Your task to perform on an android device: turn notification dots off Image 0: 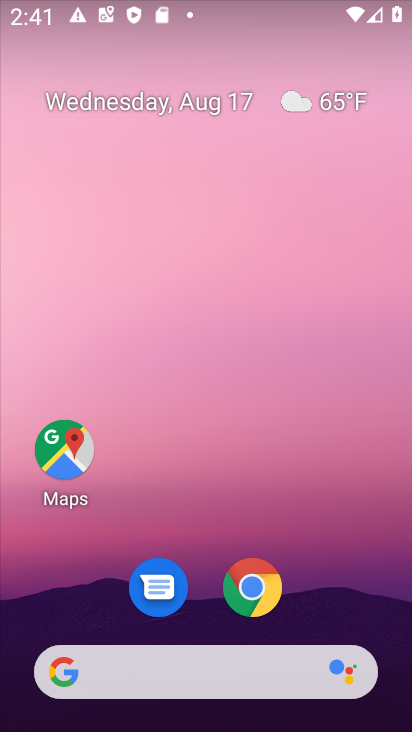
Step 0: drag from (94, 460) to (254, 88)
Your task to perform on an android device: turn notification dots off Image 1: 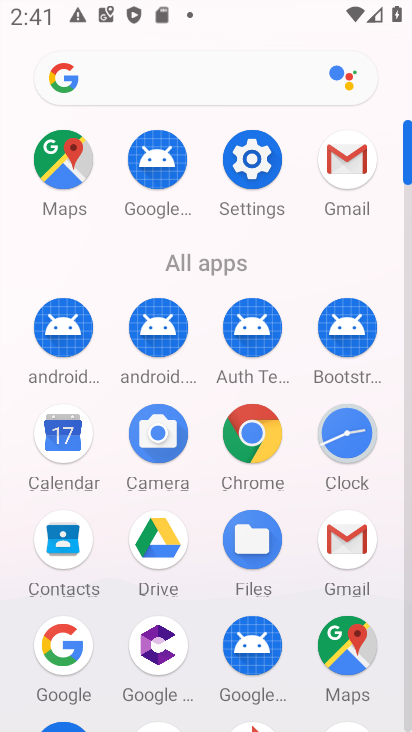
Step 1: click (255, 160)
Your task to perform on an android device: turn notification dots off Image 2: 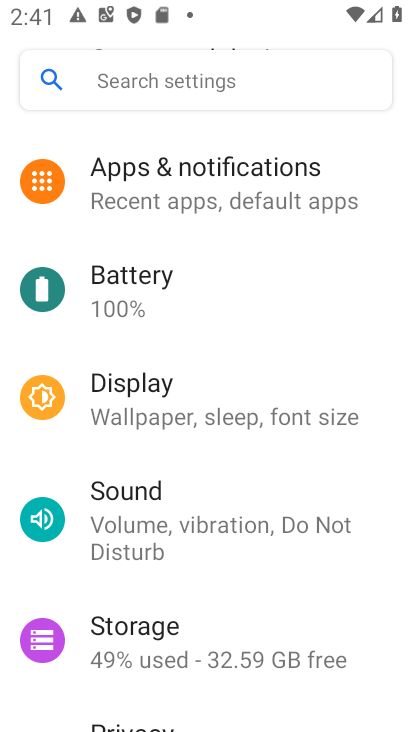
Step 2: click (165, 186)
Your task to perform on an android device: turn notification dots off Image 3: 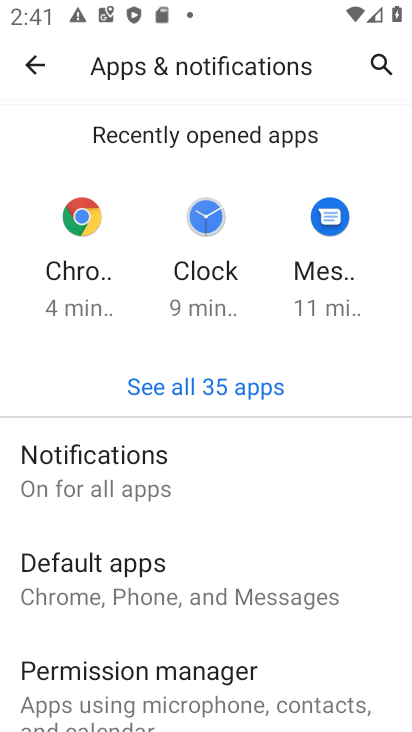
Step 3: click (87, 469)
Your task to perform on an android device: turn notification dots off Image 4: 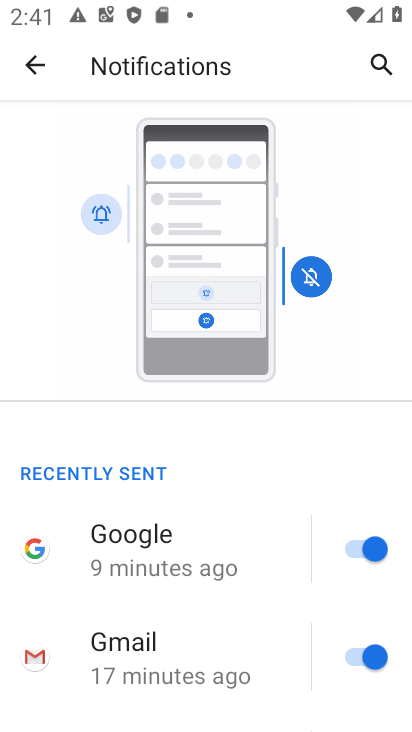
Step 4: drag from (8, 479) to (100, 68)
Your task to perform on an android device: turn notification dots off Image 5: 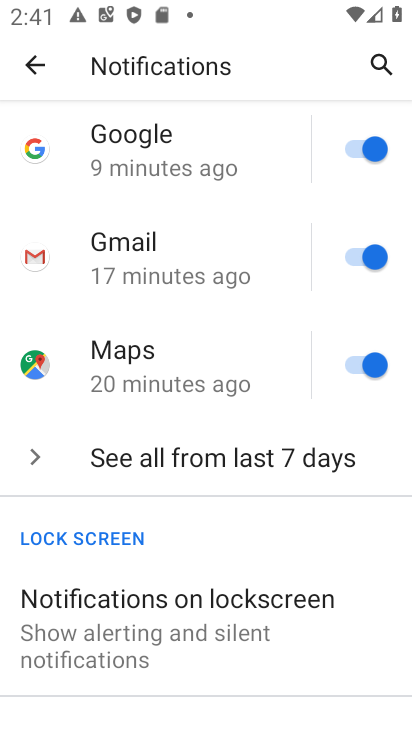
Step 5: drag from (8, 443) to (47, 58)
Your task to perform on an android device: turn notification dots off Image 6: 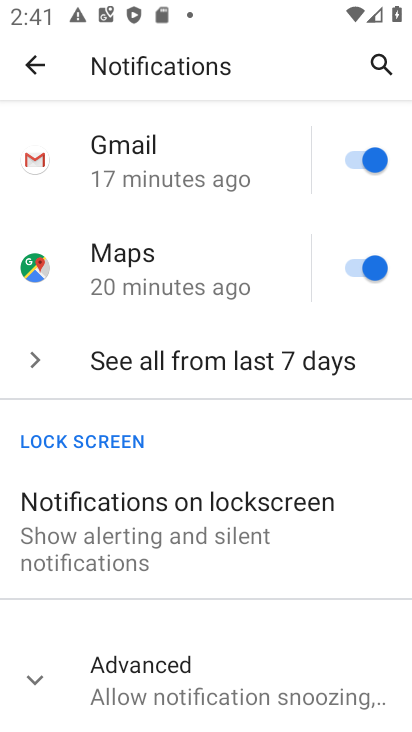
Step 6: click (37, 689)
Your task to perform on an android device: turn notification dots off Image 7: 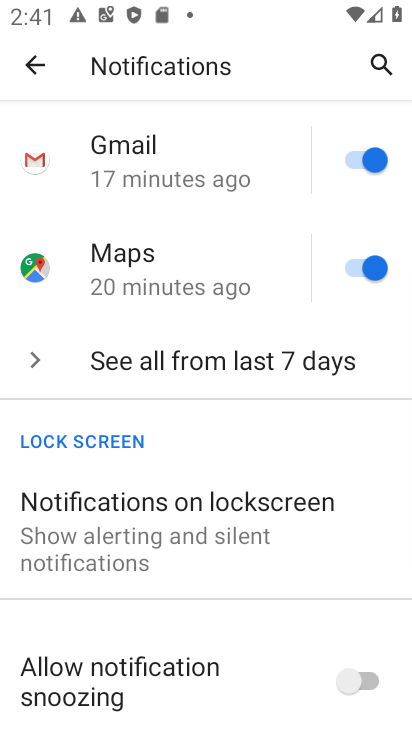
Step 7: drag from (32, 563) to (120, 92)
Your task to perform on an android device: turn notification dots off Image 8: 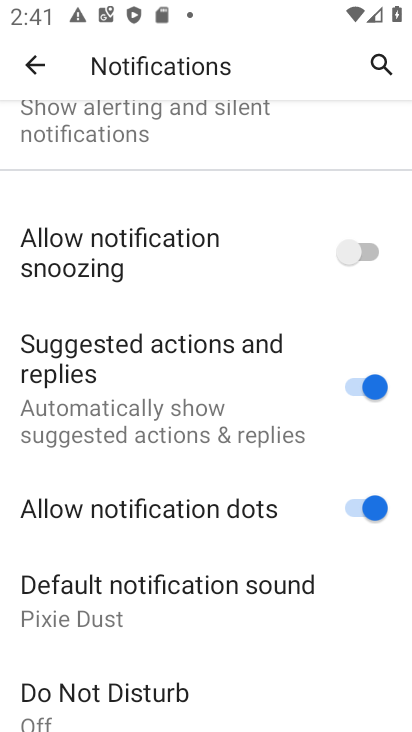
Step 8: click (379, 505)
Your task to perform on an android device: turn notification dots off Image 9: 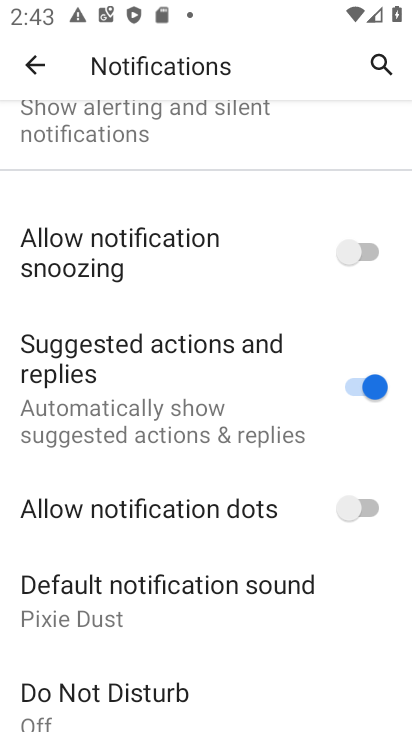
Step 9: task complete